Your task to perform on an android device: turn smart compose on in the gmail app Image 0: 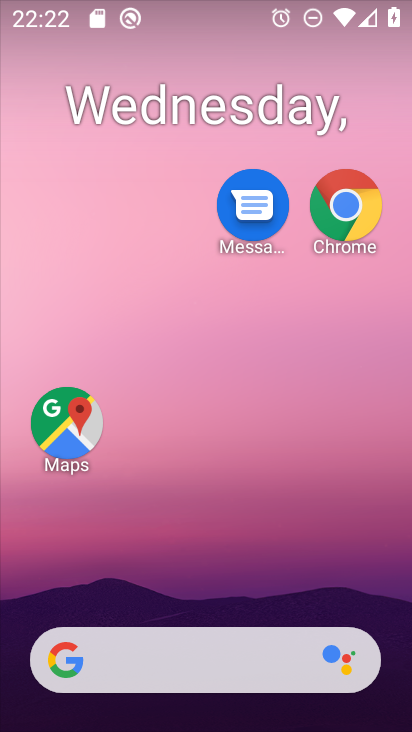
Step 0: drag from (229, 586) to (222, 91)
Your task to perform on an android device: turn smart compose on in the gmail app Image 1: 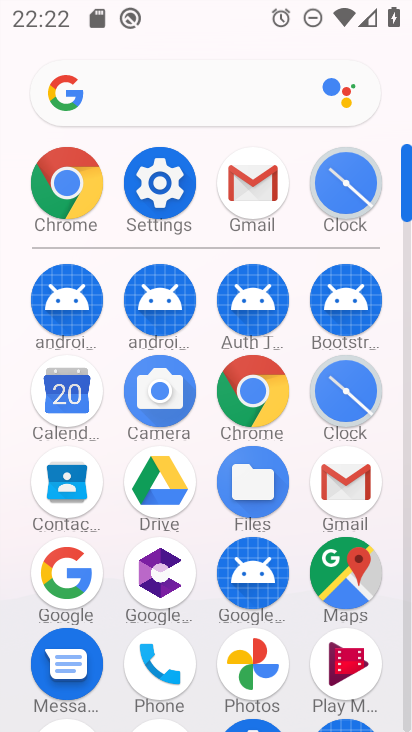
Step 1: click (343, 475)
Your task to perform on an android device: turn smart compose on in the gmail app Image 2: 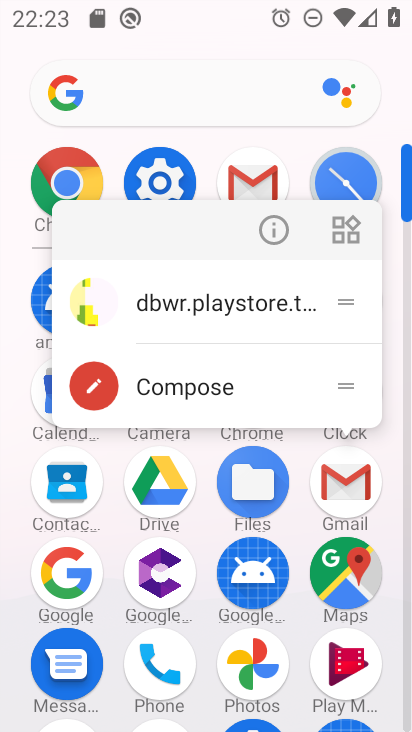
Step 2: click (283, 233)
Your task to perform on an android device: turn smart compose on in the gmail app Image 3: 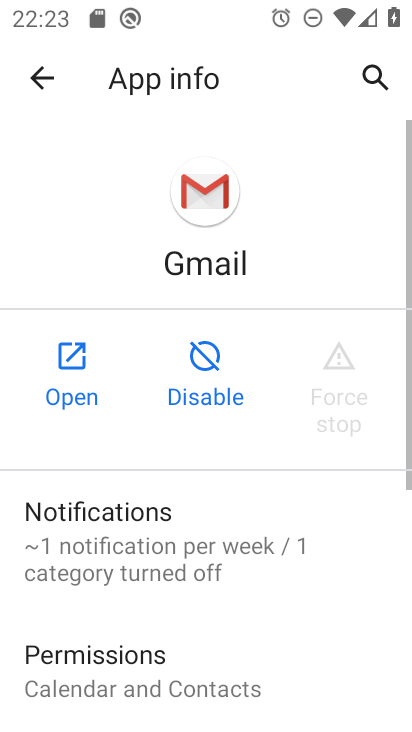
Step 3: click (73, 356)
Your task to perform on an android device: turn smart compose on in the gmail app Image 4: 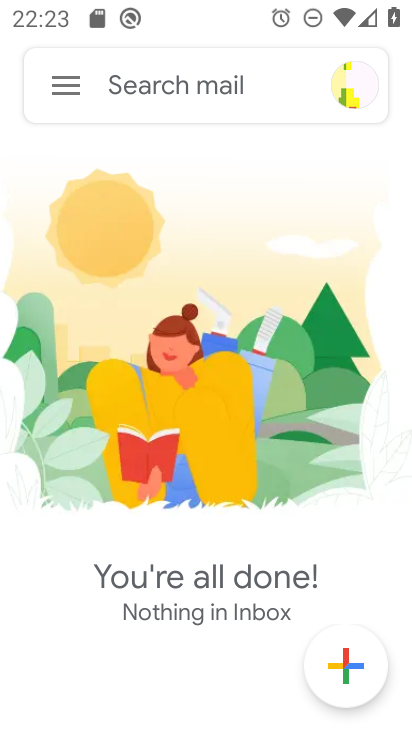
Step 4: click (62, 86)
Your task to perform on an android device: turn smart compose on in the gmail app Image 5: 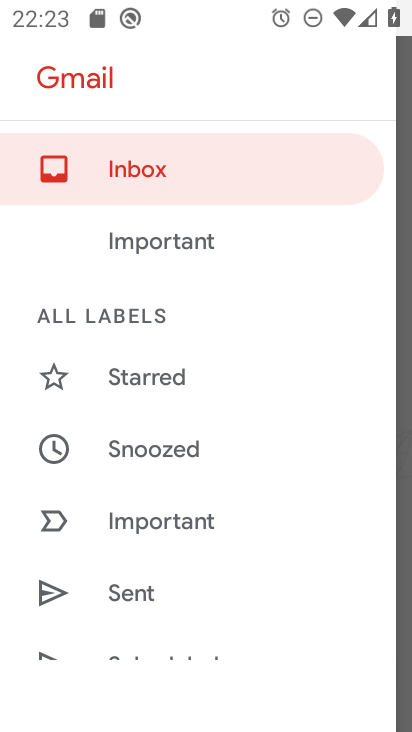
Step 5: drag from (183, 565) to (240, 49)
Your task to perform on an android device: turn smart compose on in the gmail app Image 6: 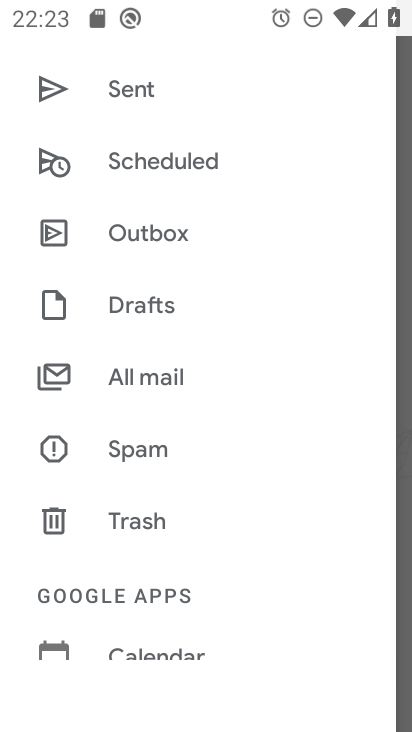
Step 6: drag from (81, 570) to (128, 133)
Your task to perform on an android device: turn smart compose on in the gmail app Image 7: 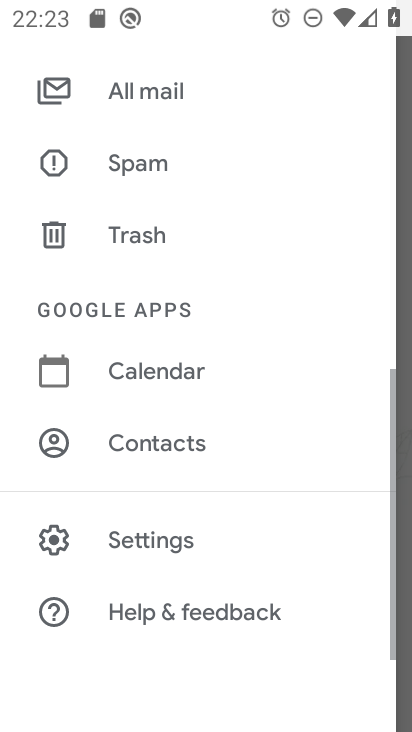
Step 7: click (167, 551)
Your task to perform on an android device: turn smart compose on in the gmail app Image 8: 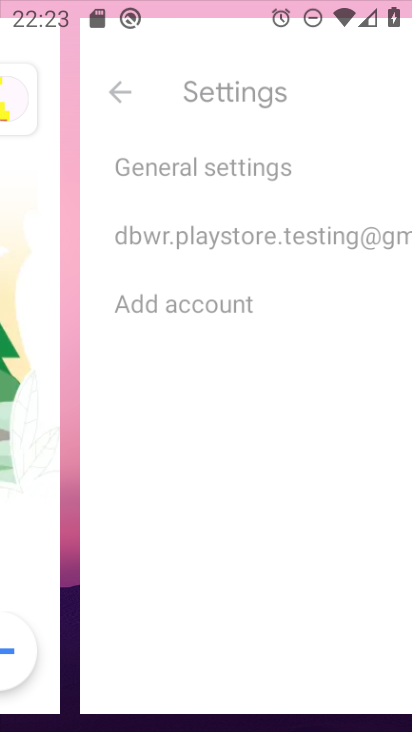
Step 8: drag from (166, 526) to (255, 22)
Your task to perform on an android device: turn smart compose on in the gmail app Image 9: 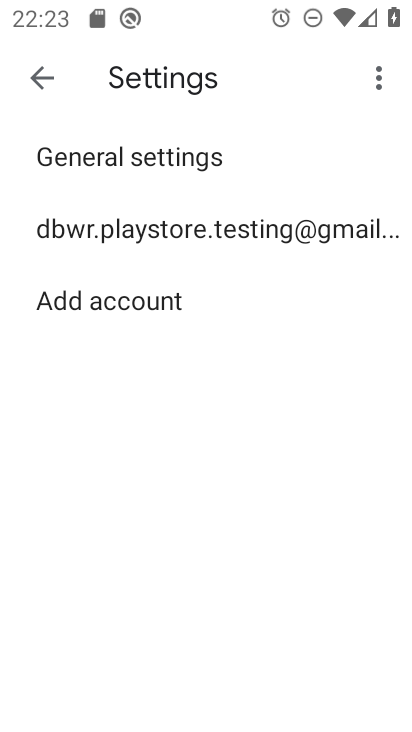
Step 9: click (181, 225)
Your task to perform on an android device: turn smart compose on in the gmail app Image 10: 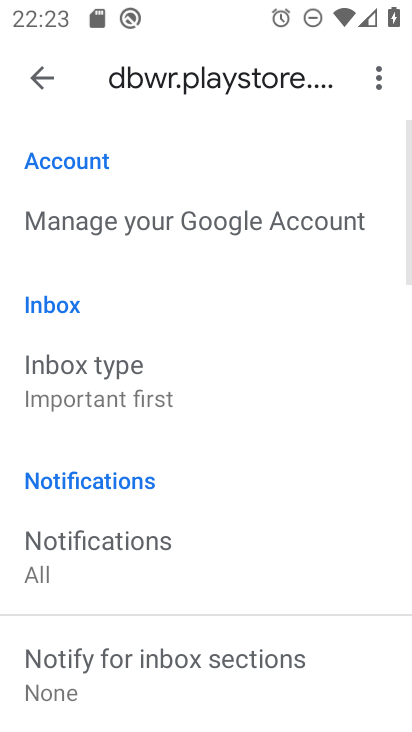
Step 10: task complete